Your task to perform on an android device: open the mobile data screen to see how much data has been used Image 0: 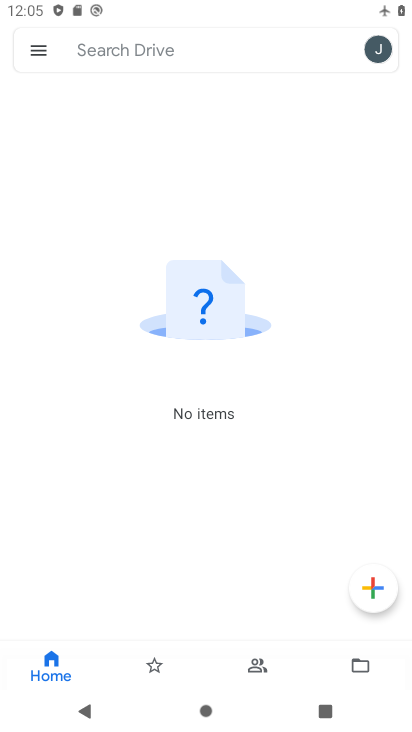
Step 0: press home button
Your task to perform on an android device: open the mobile data screen to see how much data has been used Image 1: 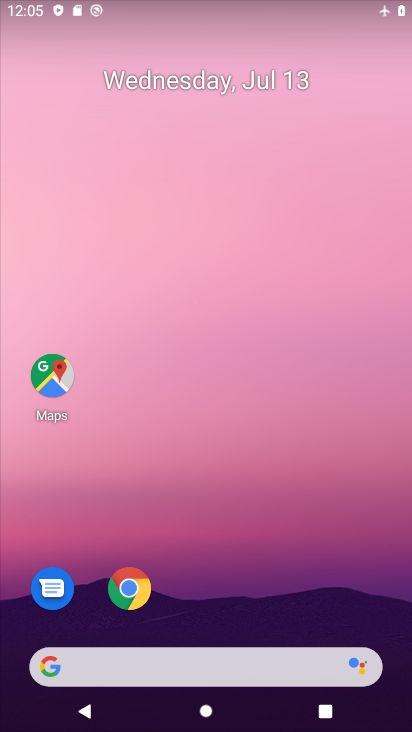
Step 1: drag from (164, 648) to (156, 146)
Your task to perform on an android device: open the mobile data screen to see how much data has been used Image 2: 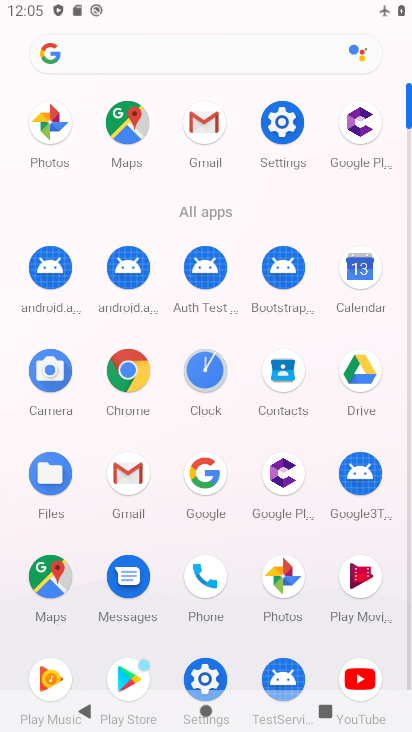
Step 2: click (290, 130)
Your task to perform on an android device: open the mobile data screen to see how much data has been used Image 3: 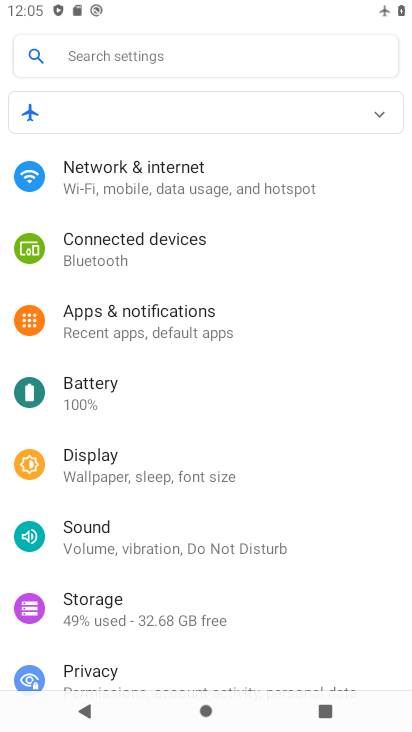
Step 3: click (173, 187)
Your task to perform on an android device: open the mobile data screen to see how much data has been used Image 4: 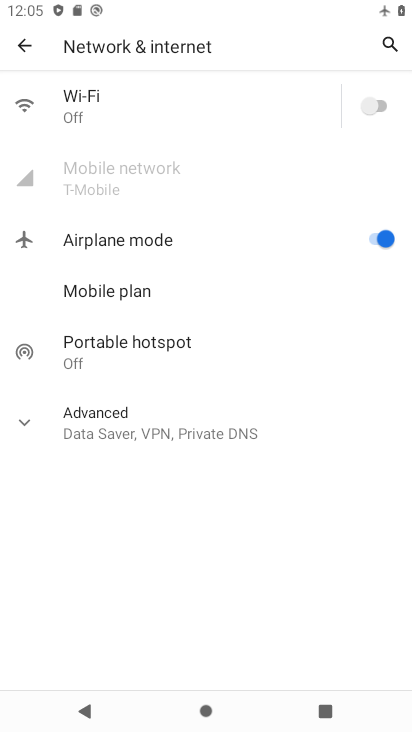
Step 4: click (378, 231)
Your task to perform on an android device: open the mobile data screen to see how much data has been used Image 5: 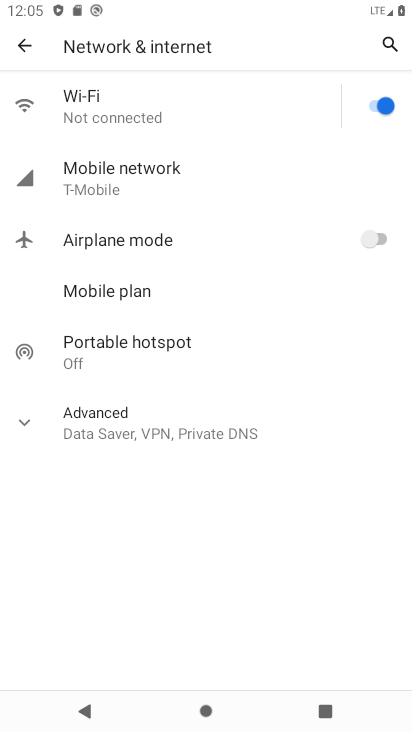
Step 5: click (122, 178)
Your task to perform on an android device: open the mobile data screen to see how much data has been used Image 6: 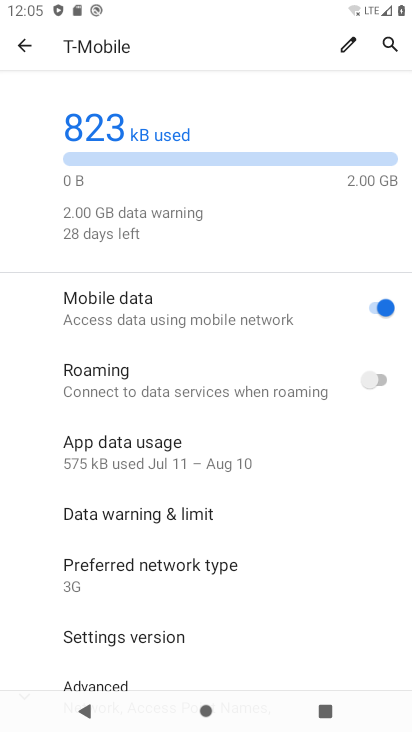
Step 6: task complete